Your task to perform on an android device: uninstall "Grab" Image 0: 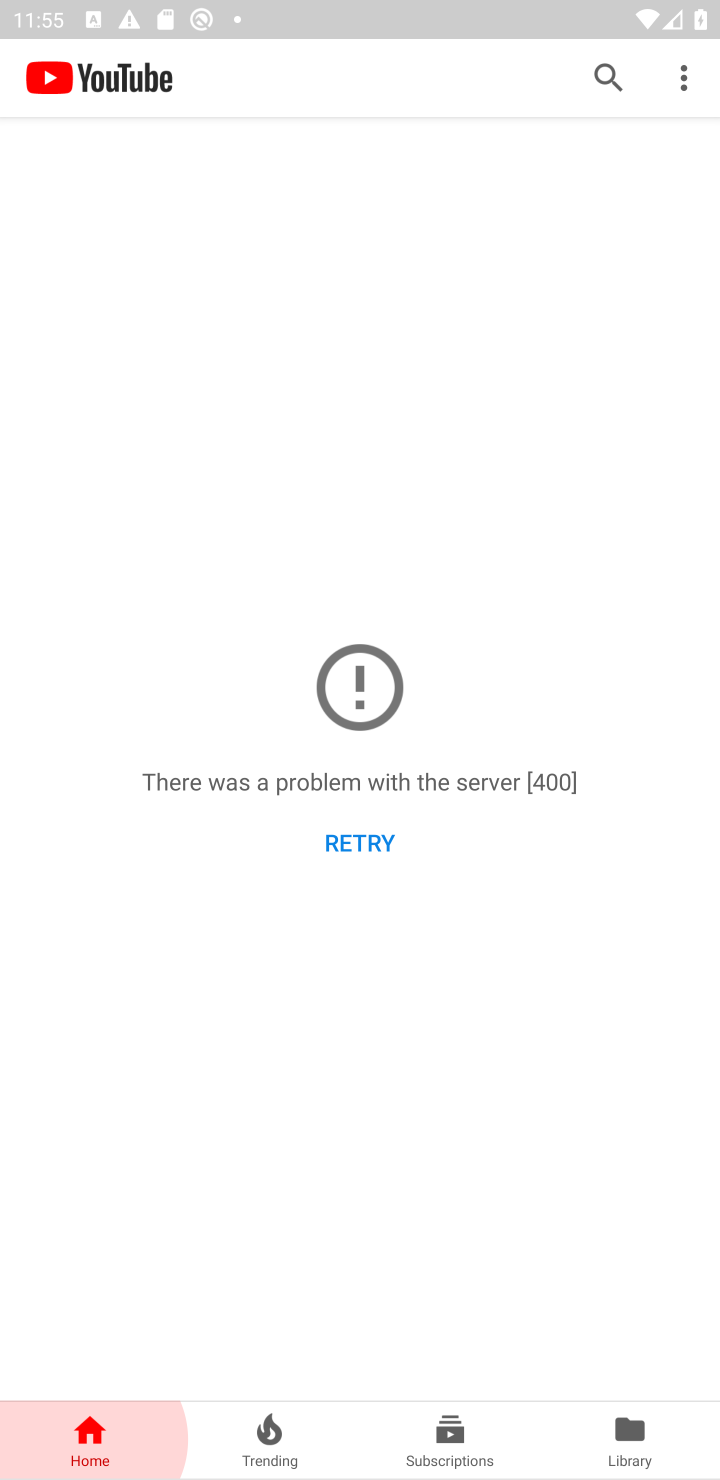
Step 0: press home button
Your task to perform on an android device: uninstall "Grab" Image 1: 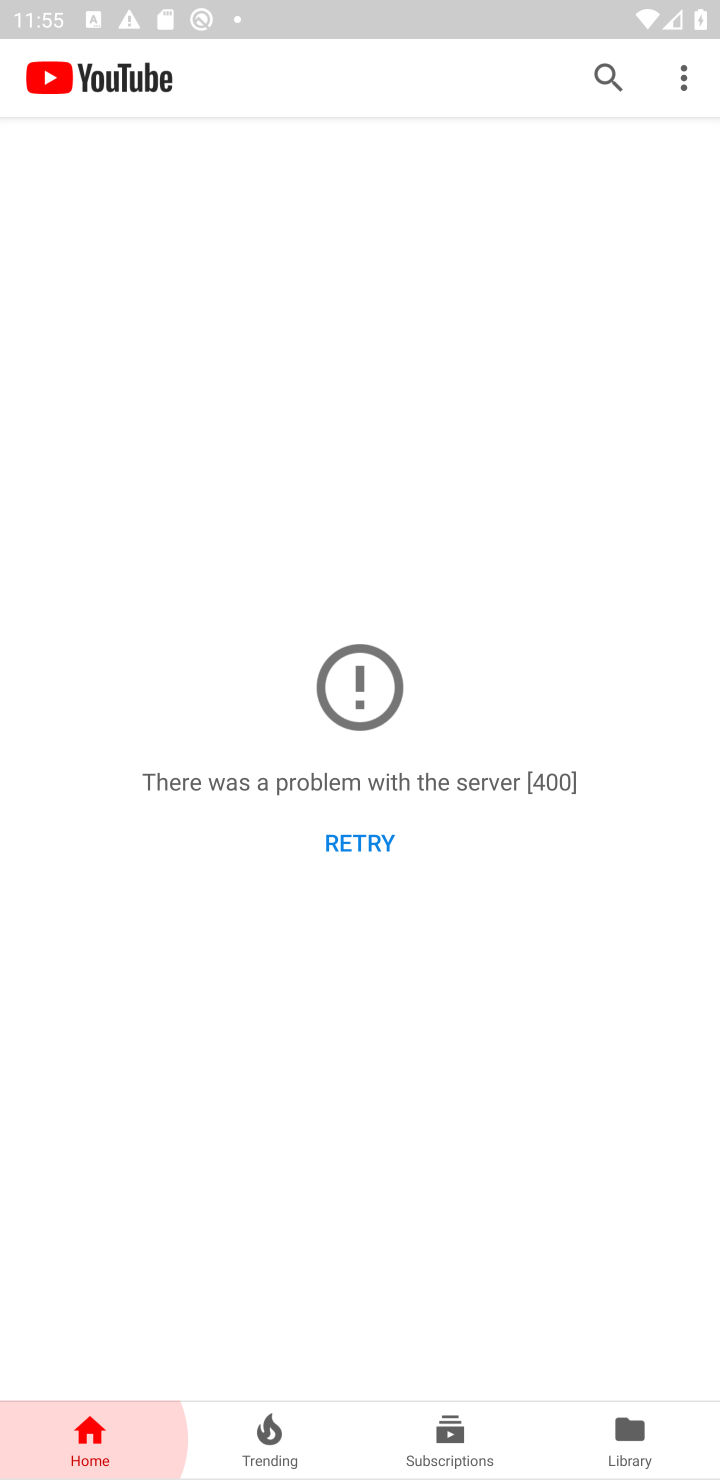
Step 1: press home button
Your task to perform on an android device: uninstall "Grab" Image 2: 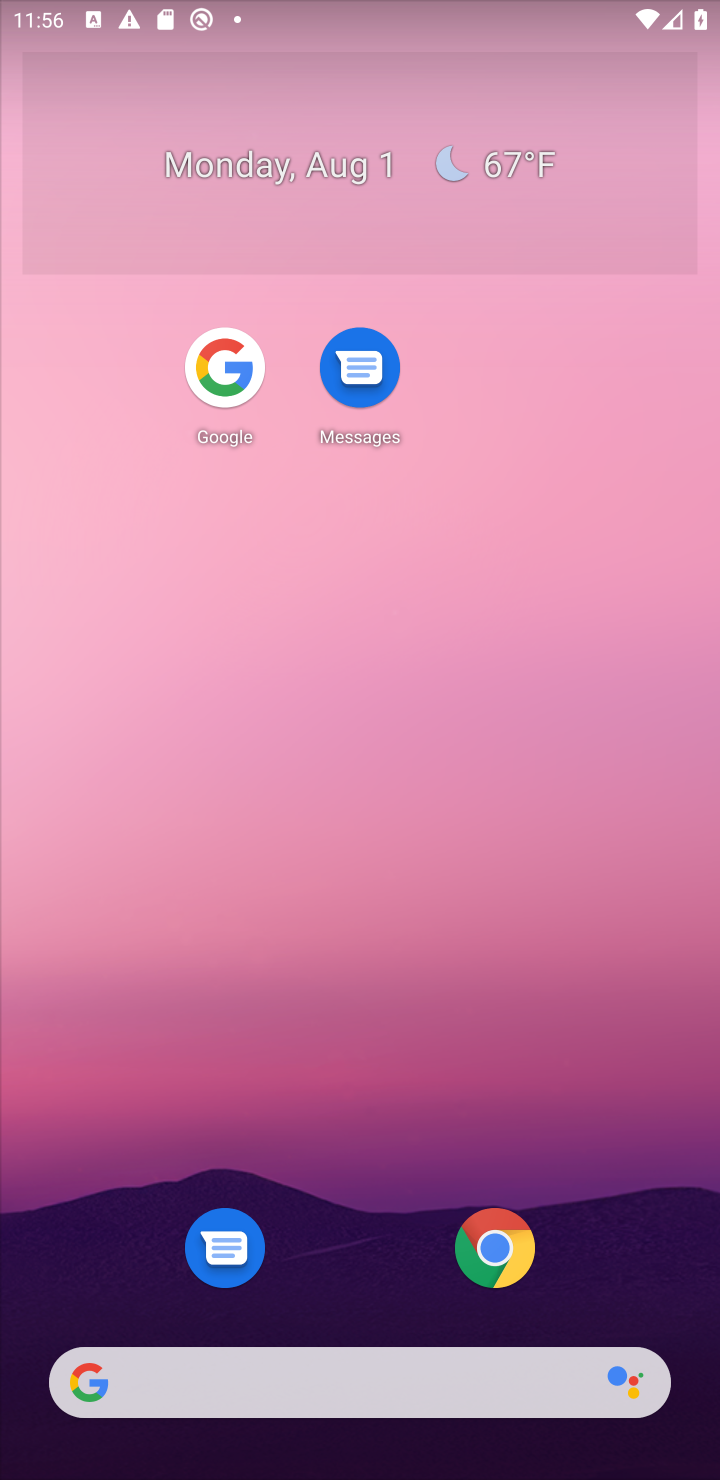
Step 2: drag from (564, 545) to (517, 86)
Your task to perform on an android device: uninstall "Grab" Image 3: 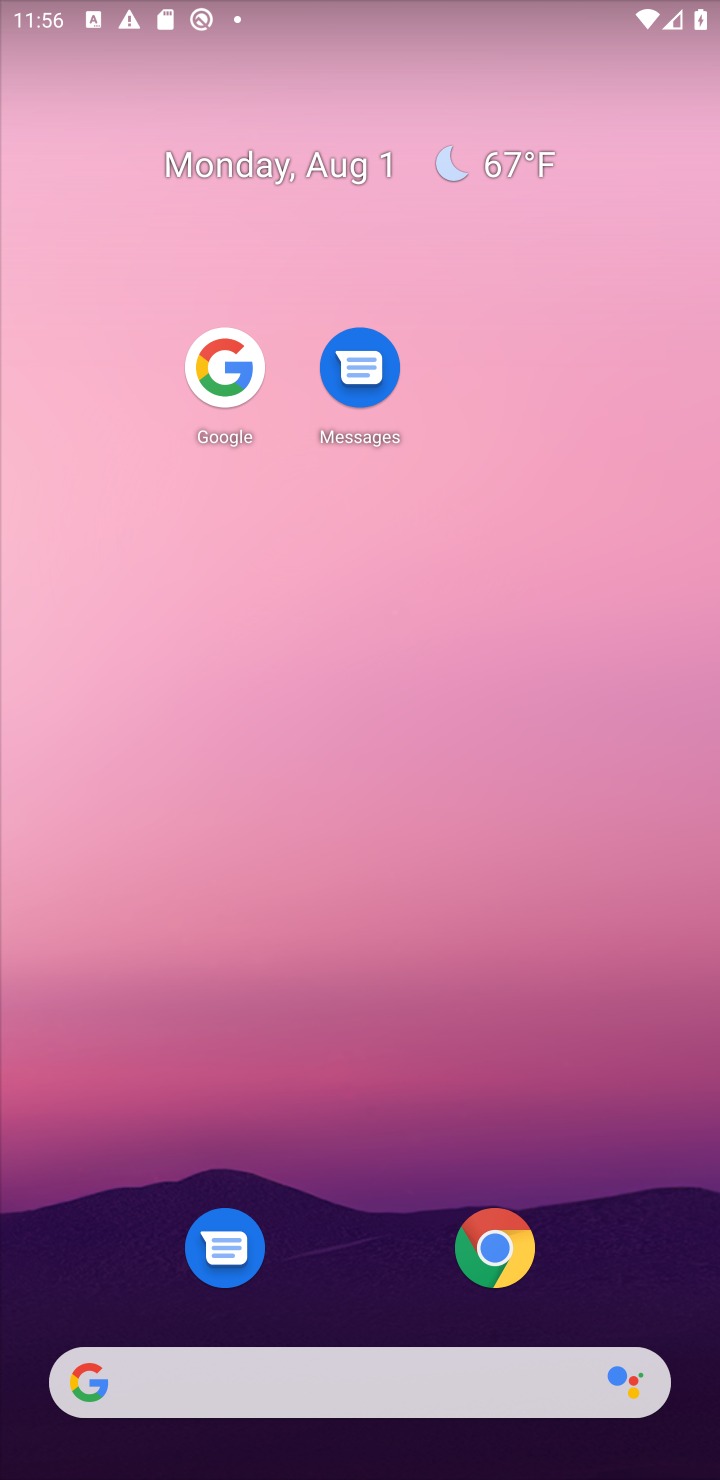
Step 3: drag from (604, 942) to (607, 60)
Your task to perform on an android device: uninstall "Grab" Image 4: 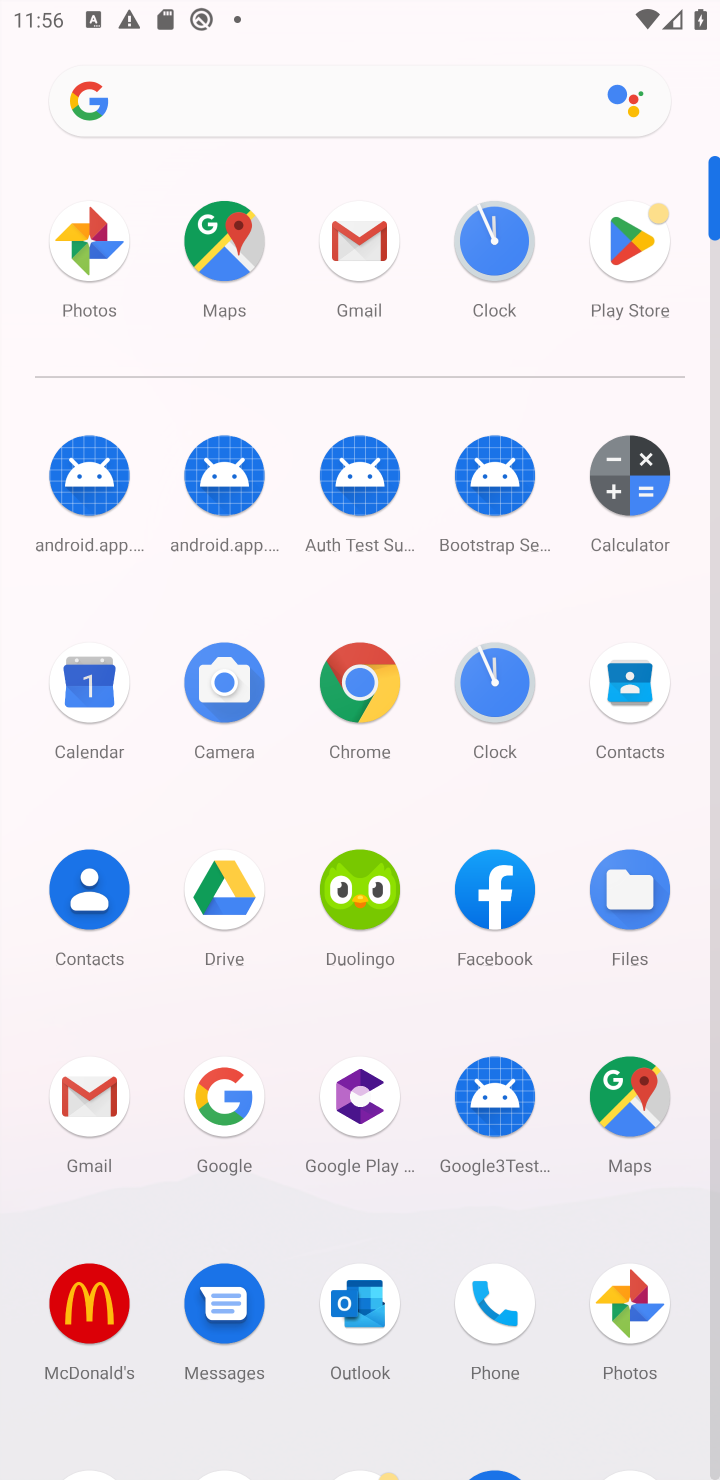
Step 4: drag from (420, 1216) to (409, 484)
Your task to perform on an android device: uninstall "Grab" Image 5: 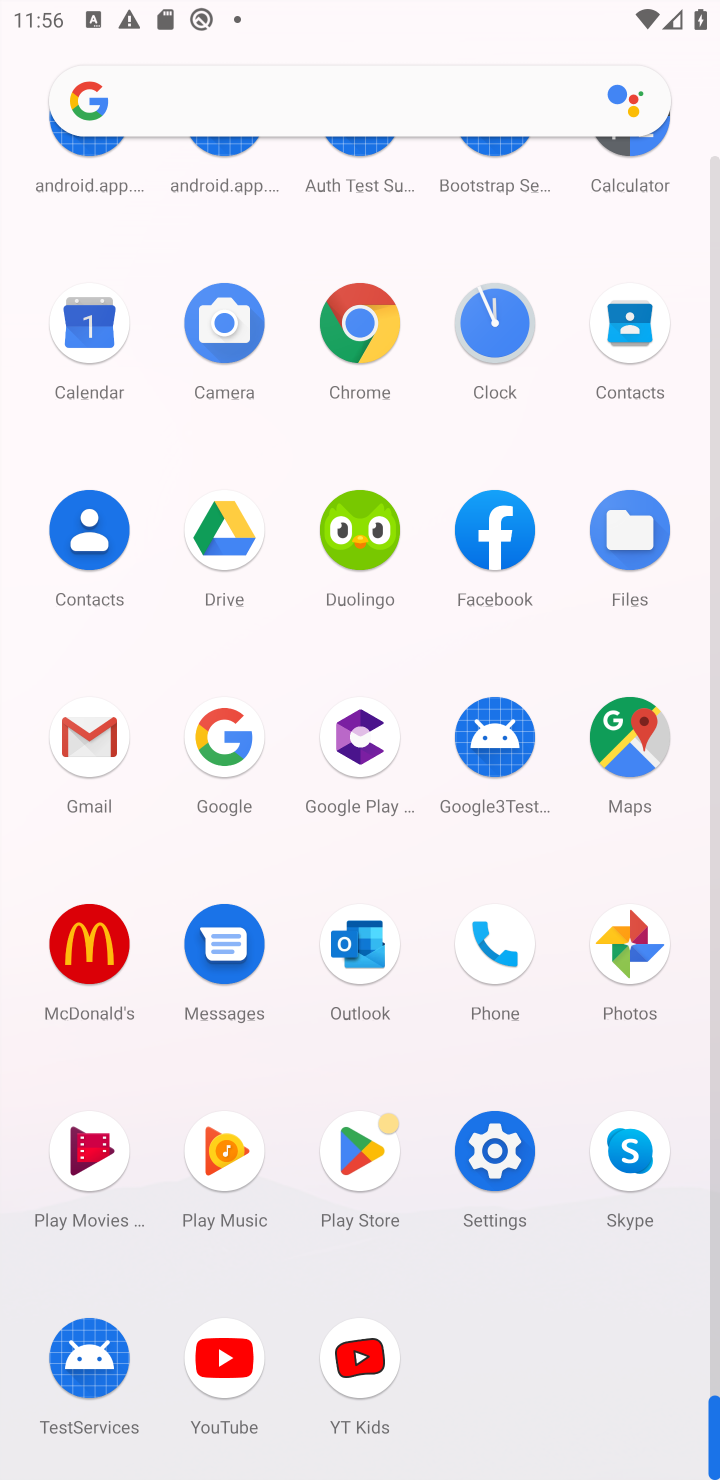
Step 5: click (362, 1152)
Your task to perform on an android device: uninstall "Grab" Image 6: 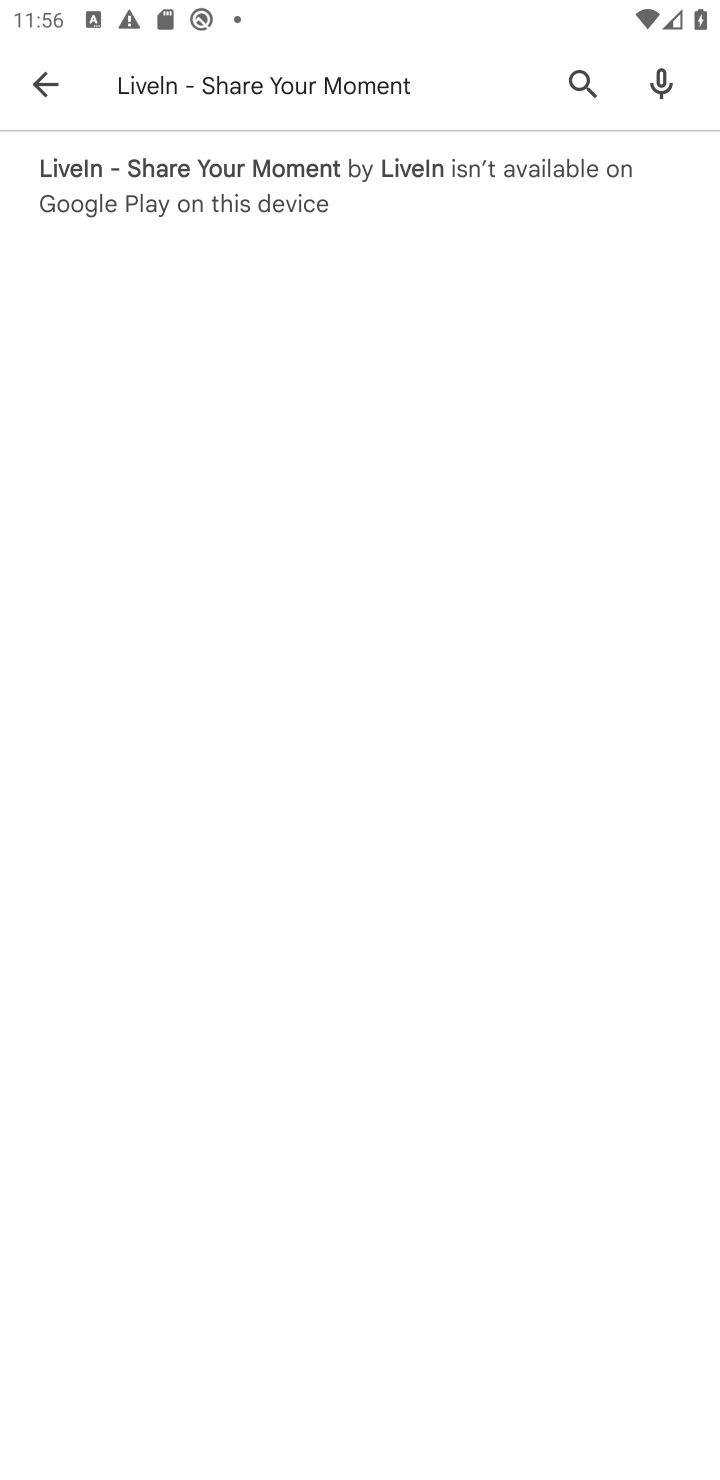
Step 6: click (485, 93)
Your task to perform on an android device: uninstall "Grab" Image 7: 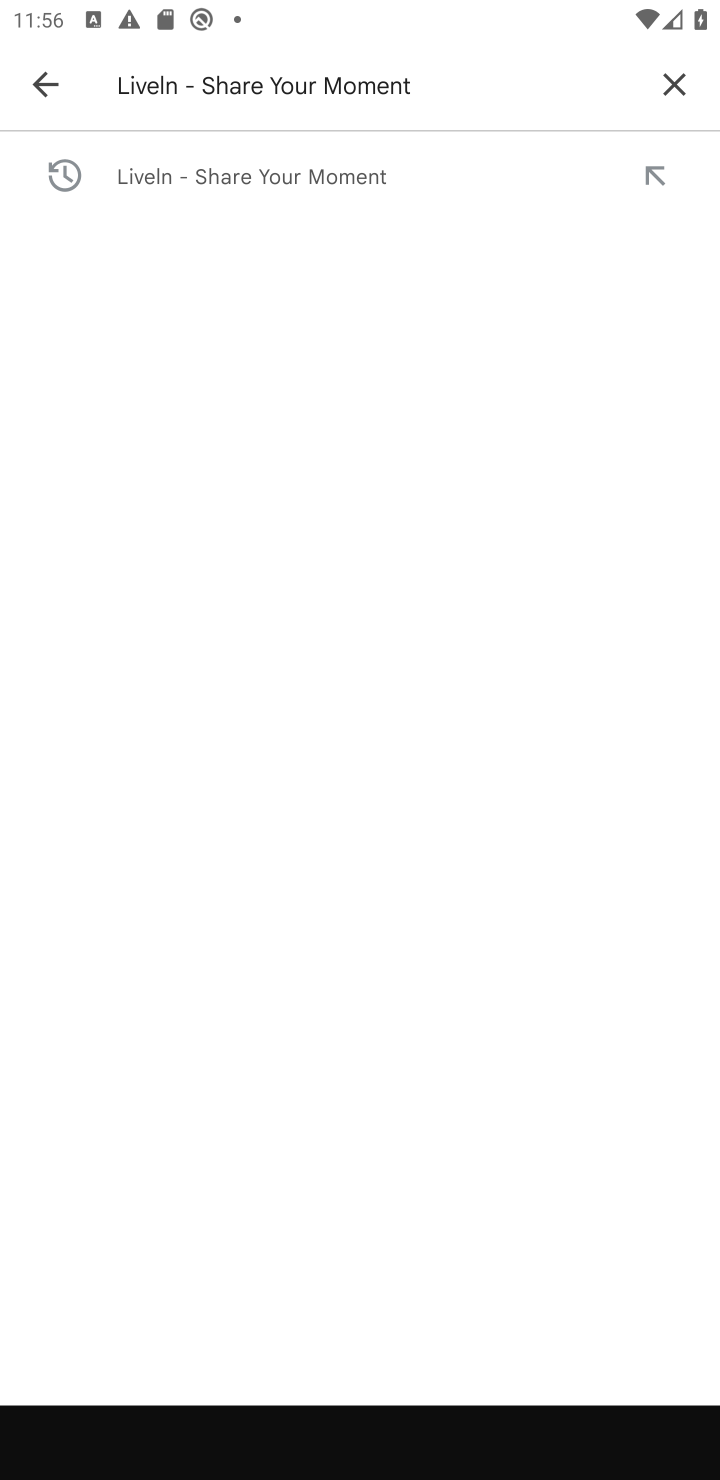
Step 7: click (680, 92)
Your task to perform on an android device: uninstall "Grab" Image 8: 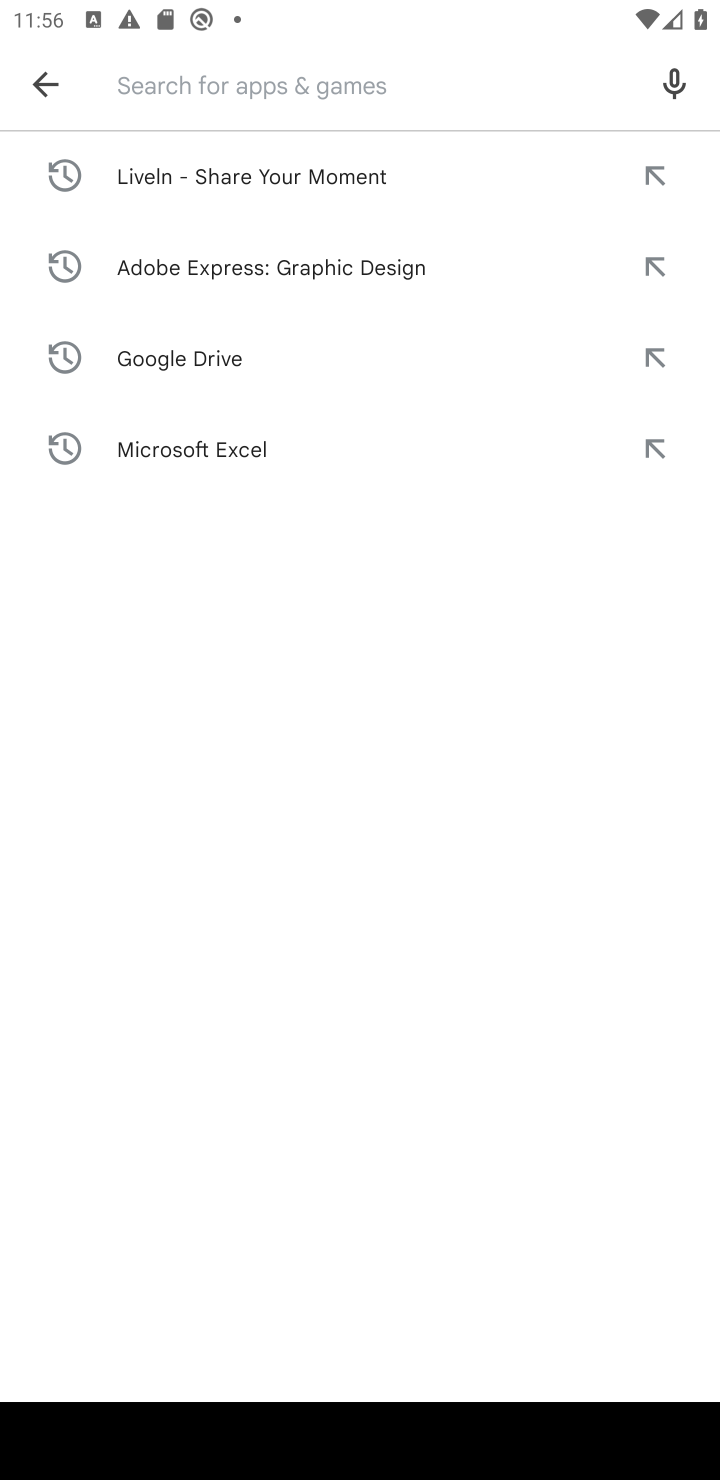
Step 8: type "Grab"
Your task to perform on an android device: uninstall "Grab" Image 9: 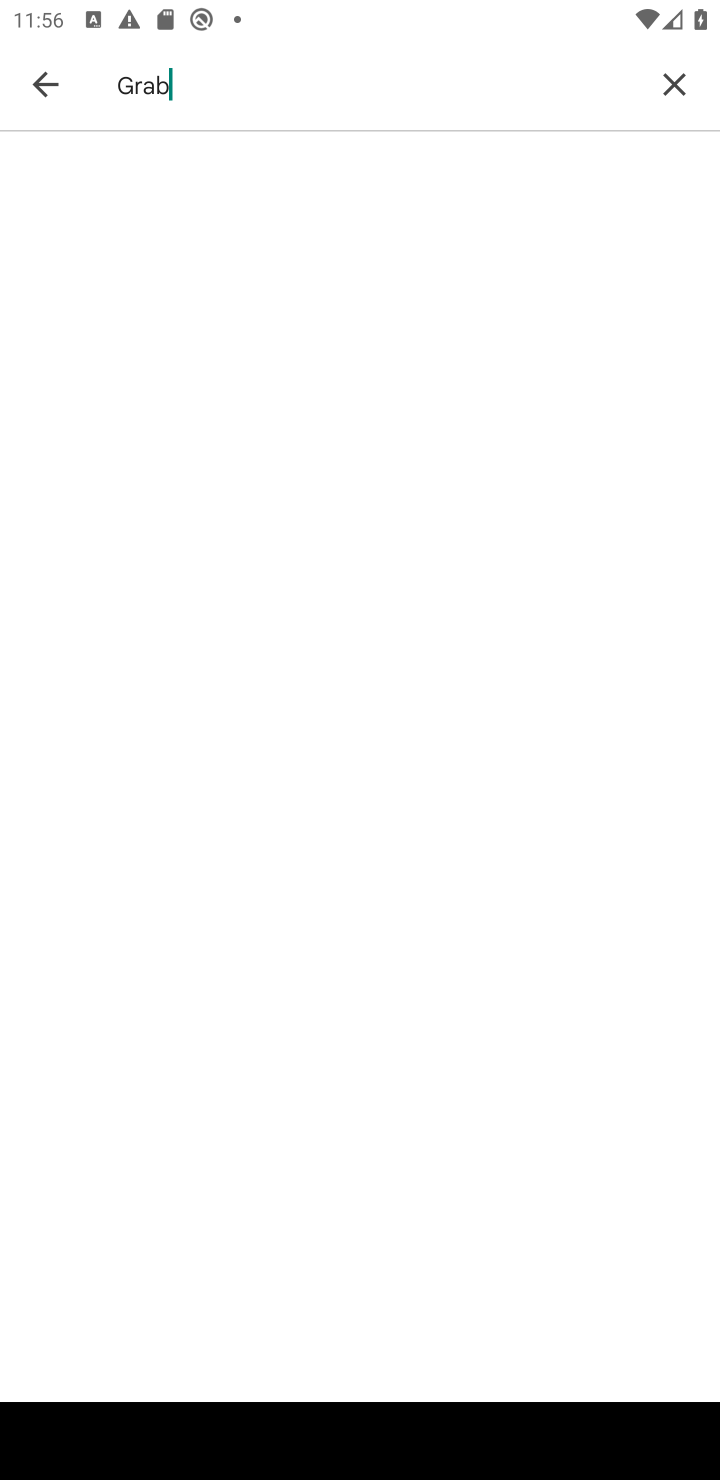
Step 9: press enter
Your task to perform on an android device: uninstall "Grab" Image 10: 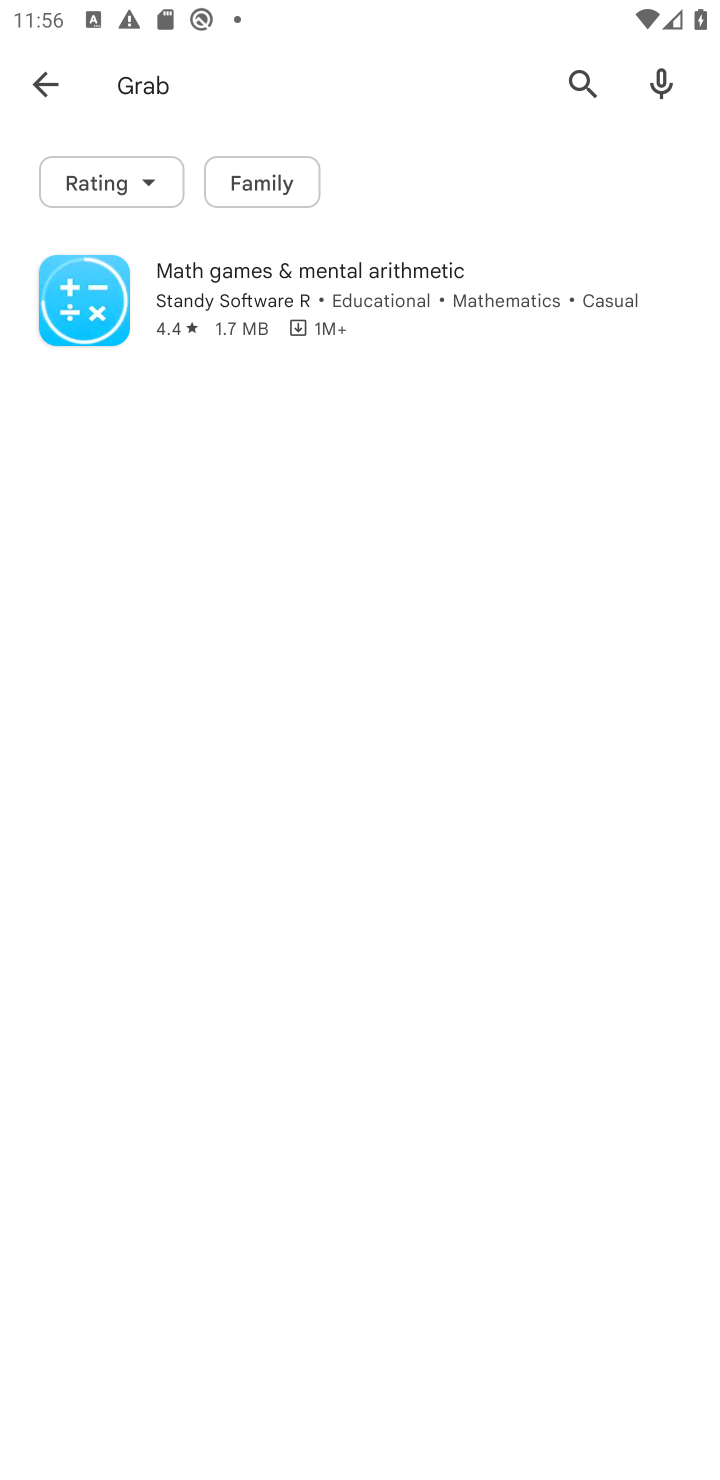
Step 10: task complete